Your task to perform on an android device: read, delete, or share a saved page in the chrome app Image 0: 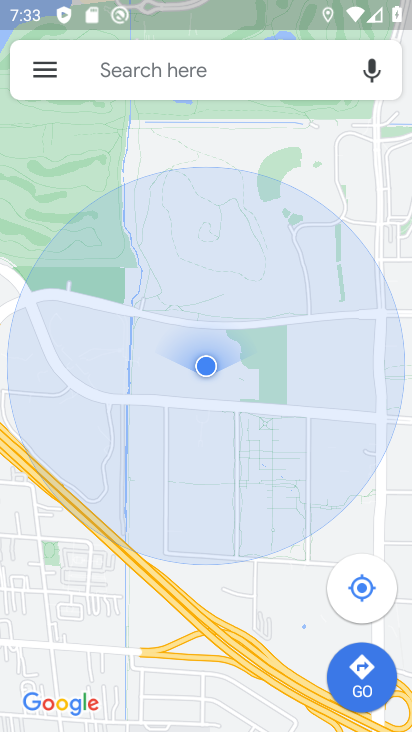
Step 0: press home button
Your task to perform on an android device: read, delete, or share a saved page in the chrome app Image 1: 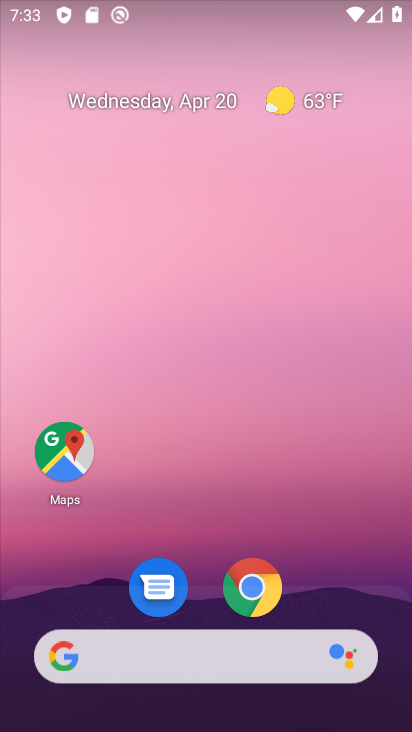
Step 1: click (246, 587)
Your task to perform on an android device: read, delete, or share a saved page in the chrome app Image 2: 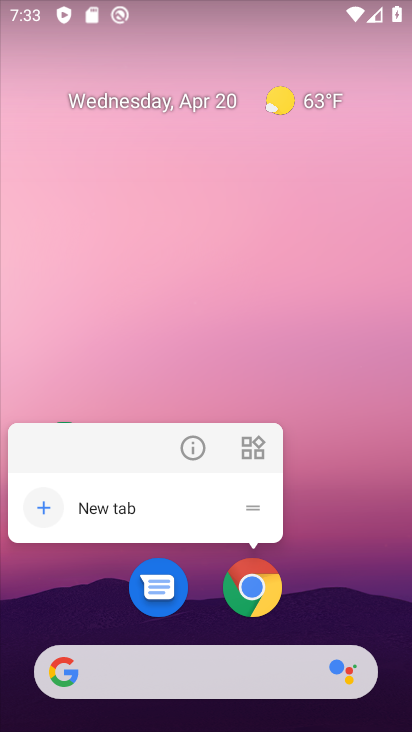
Step 2: click (253, 588)
Your task to perform on an android device: read, delete, or share a saved page in the chrome app Image 3: 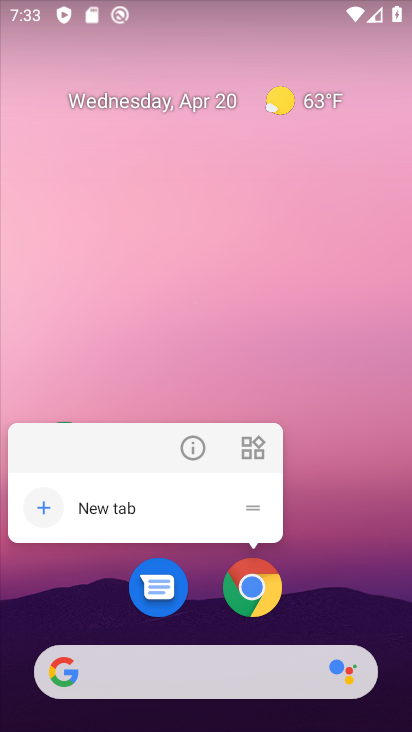
Step 3: click (253, 588)
Your task to perform on an android device: read, delete, or share a saved page in the chrome app Image 4: 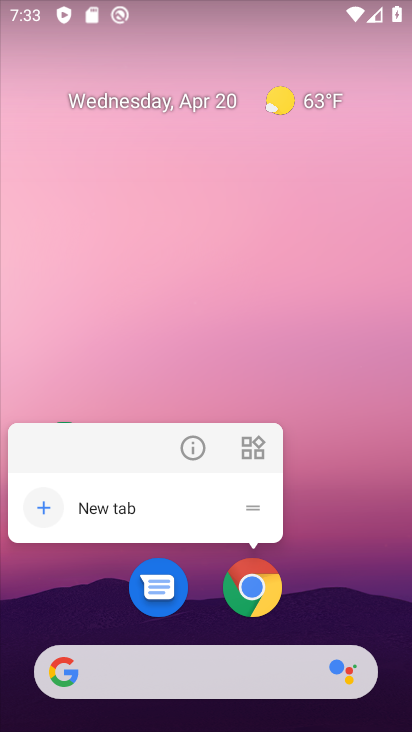
Step 4: click (253, 588)
Your task to perform on an android device: read, delete, or share a saved page in the chrome app Image 5: 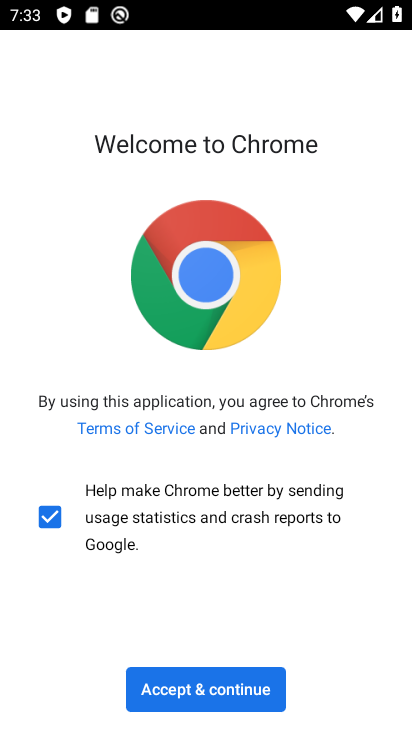
Step 5: click (186, 685)
Your task to perform on an android device: read, delete, or share a saved page in the chrome app Image 6: 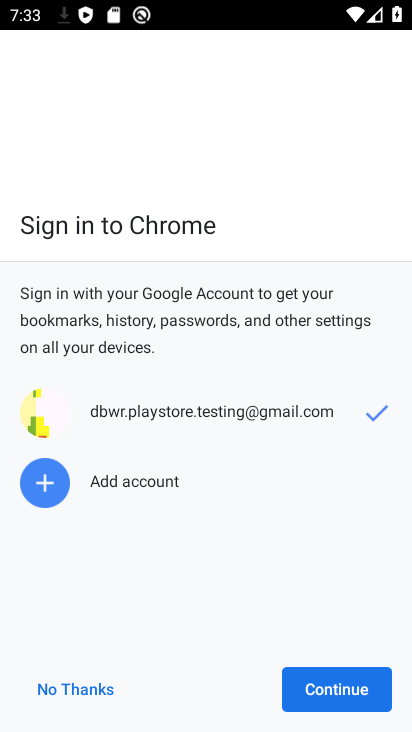
Step 6: click (329, 700)
Your task to perform on an android device: read, delete, or share a saved page in the chrome app Image 7: 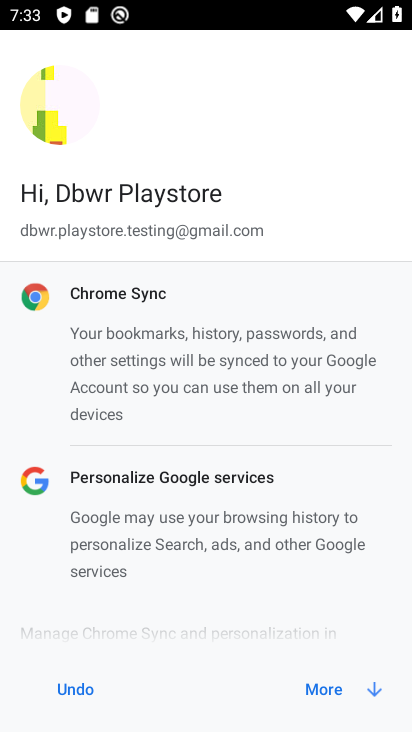
Step 7: click (329, 700)
Your task to perform on an android device: read, delete, or share a saved page in the chrome app Image 8: 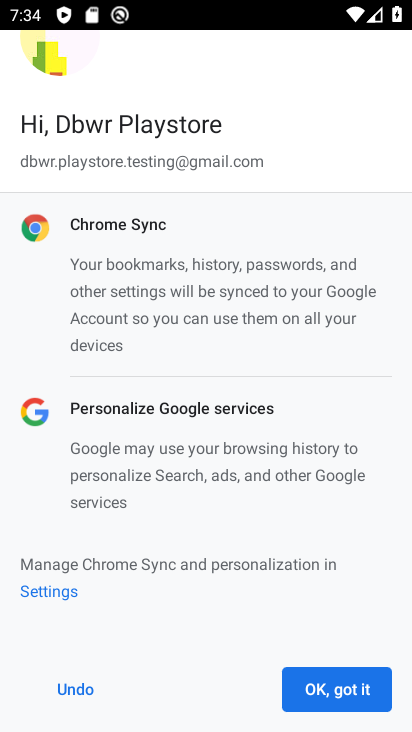
Step 8: click (346, 679)
Your task to perform on an android device: read, delete, or share a saved page in the chrome app Image 9: 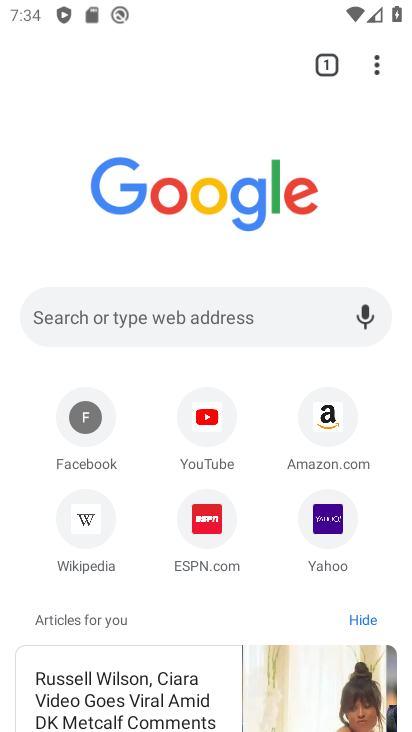
Step 9: click (386, 60)
Your task to perform on an android device: read, delete, or share a saved page in the chrome app Image 10: 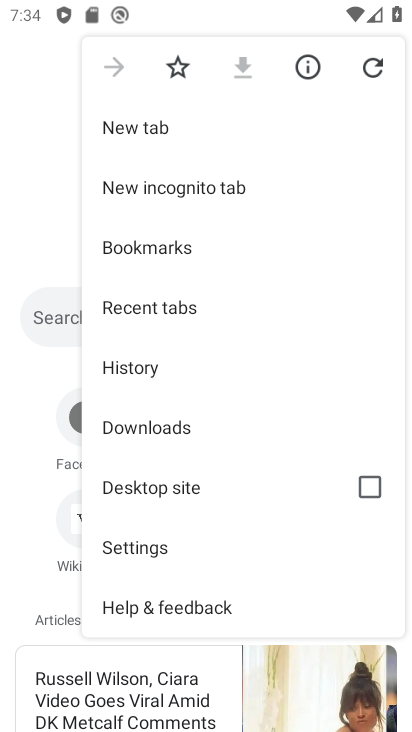
Step 10: click (146, 416)
Your task to perform on an android device: read, delete, or share a saved page in the chrome app Image 11: 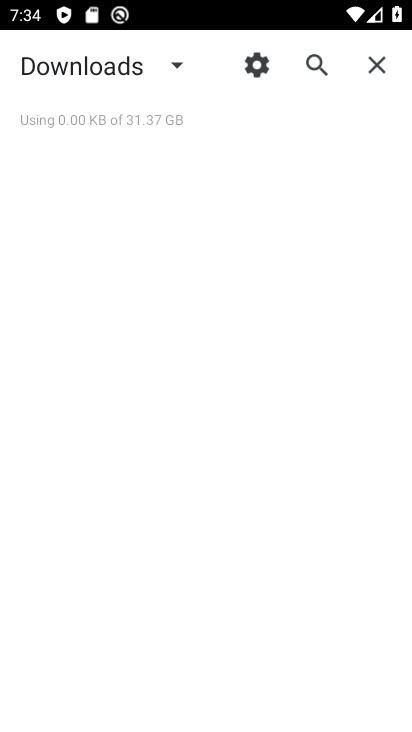
Step 11: task complete